Your task to perform on an android device: open app "PUBG MOBILE" (install if not already installed) Image 0: 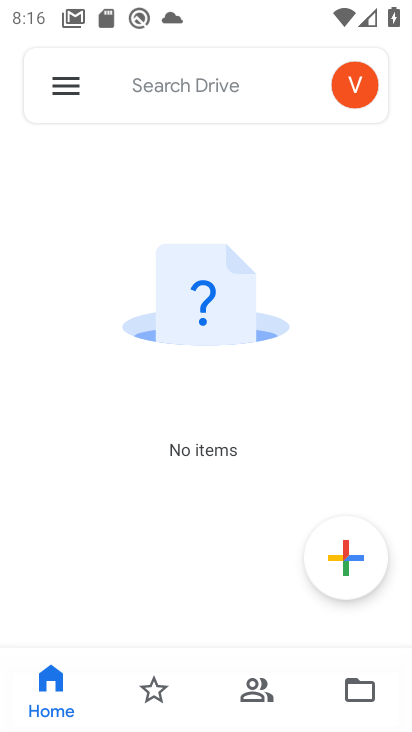
Step 0: press home button
Your task to perform on an android device: open app "PUBG MOBILE" (install if not already installed) Image 1: 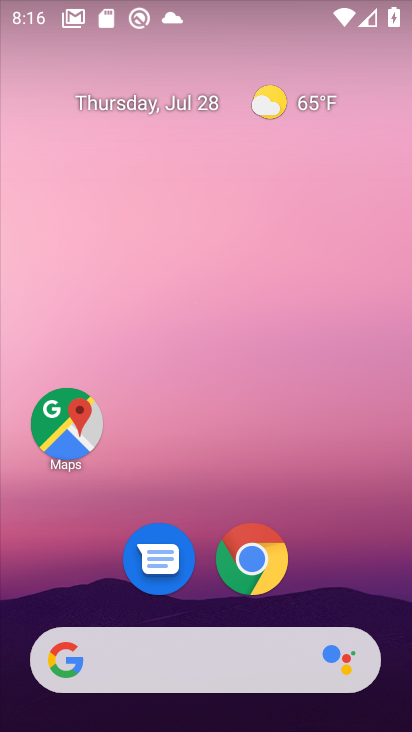
Step 1: drag from (206, 579) to (195, 212)
Your task to perform on an android device: open app "PUBG MOBILE" (install if not already installed) Image 2: 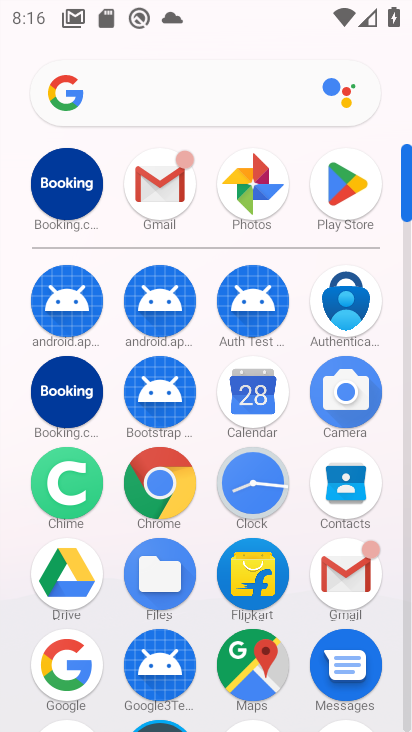
Step 2: click (348, 203)
Your task to perform on an android device: open app "PUBG MOBILE" (install if not already installed) Image 3: 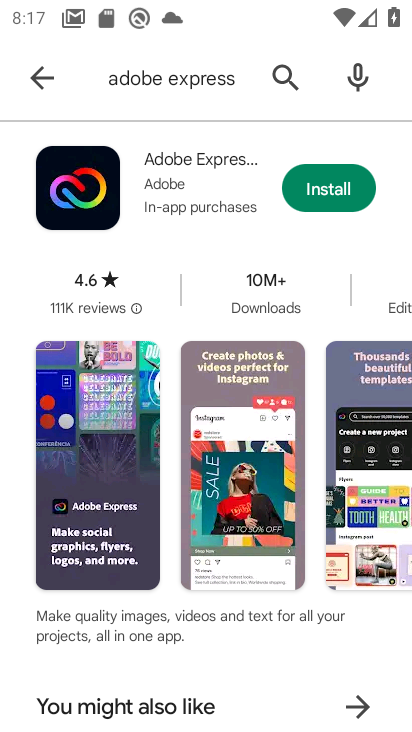
Step 3: click (196, 80)
Your task to perform on an android device: open app "PUBG MOBILE" (install if not already installed) Image 4: 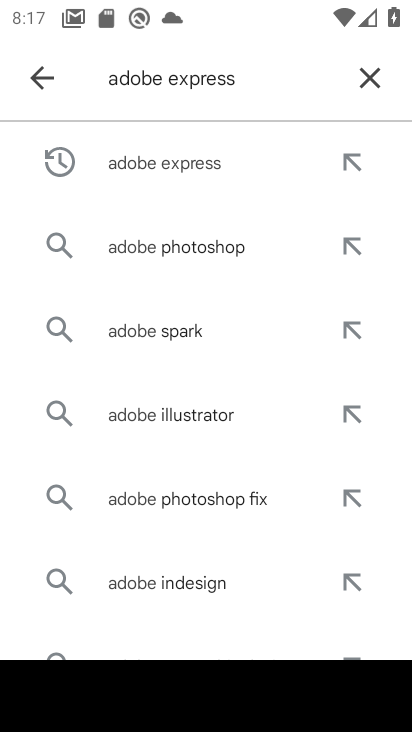
Step 4: click (361, 75)
Your task to perform on an android device: open app "PUBG MOBILE" (install if not already installed) Image 5: 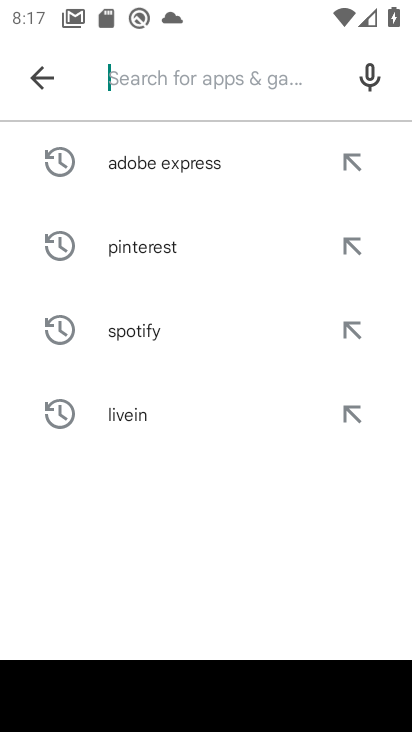
Step 5: type "PUBG "
Your task to perform on an android device: open app "PUBG MOBILE" (install if not already installed) Image 6: 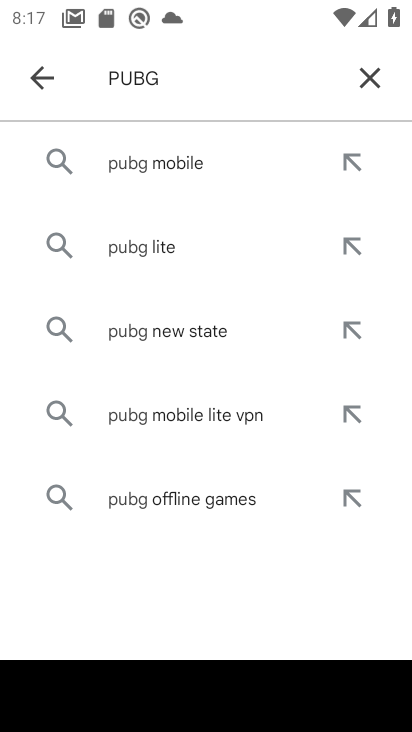
Step 6: click (193, 180)
Your task to perform on an android device: open app "PUBG MOBILE" (install if not already installed) Image 7: 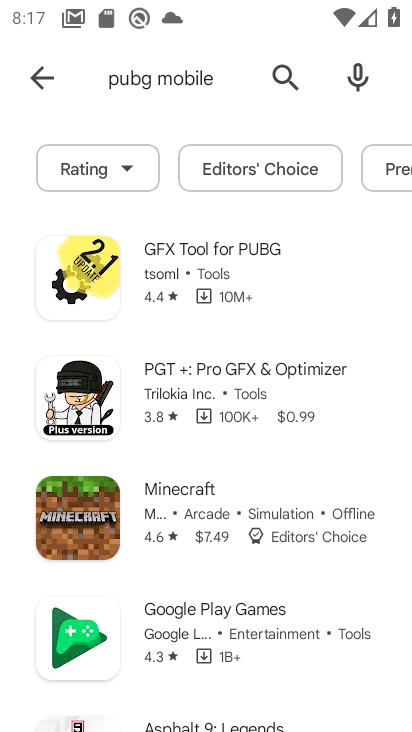
Step 7: task complete